Your task to perform on an android device: Go to sound settings Image 0: 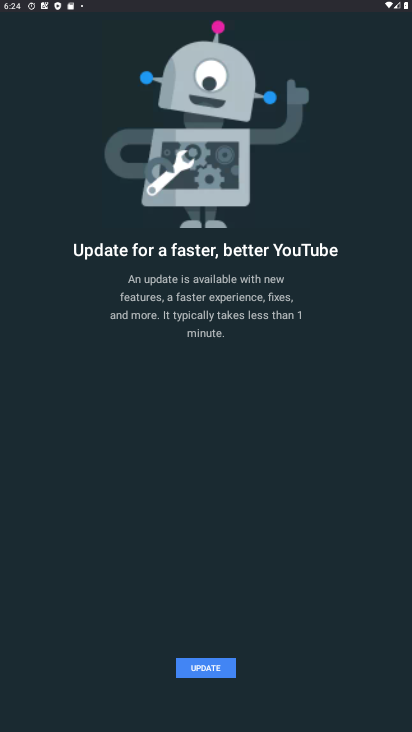
Step 0: press home button
Your task to perform on an android device: Go to sound settings Image 1: 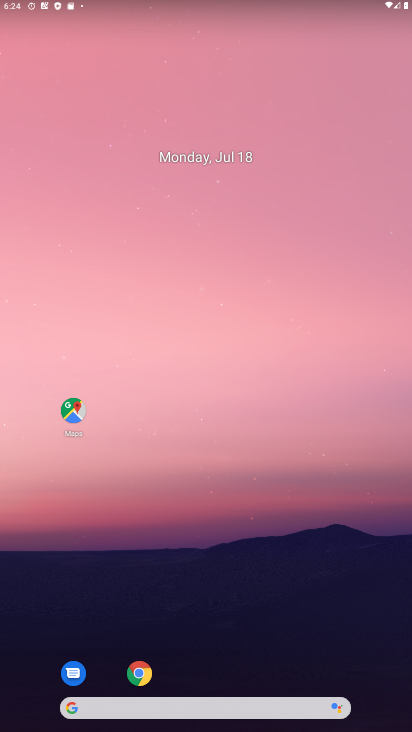
Step 1: drag from (293, 616) to (316, 298)
Your task to perform on an android device: Go to sound settings Image 2: 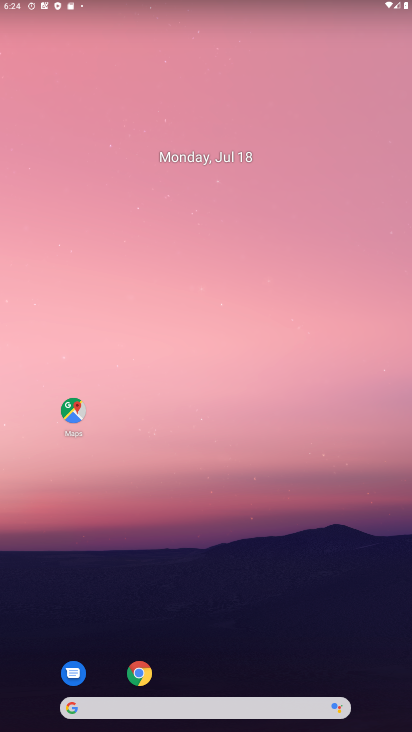
Step 2: drag from (257, 658) to (247, 288)
Your task to perform on an android device: Go to sound settings Image 3: 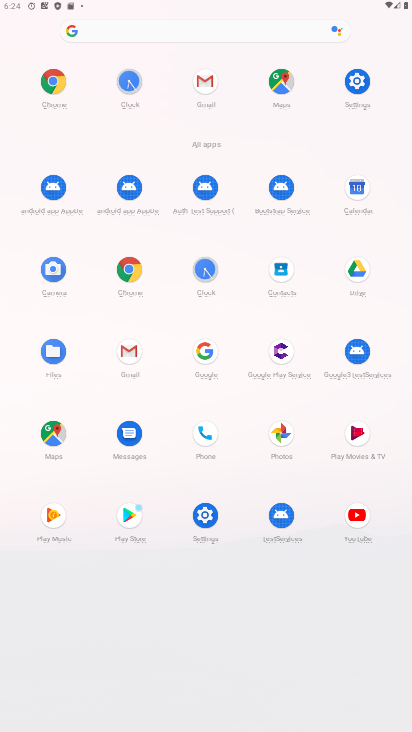
Step 3: click (202, 516)
Your task to perform on an android device: Go to sound settings Image 4: 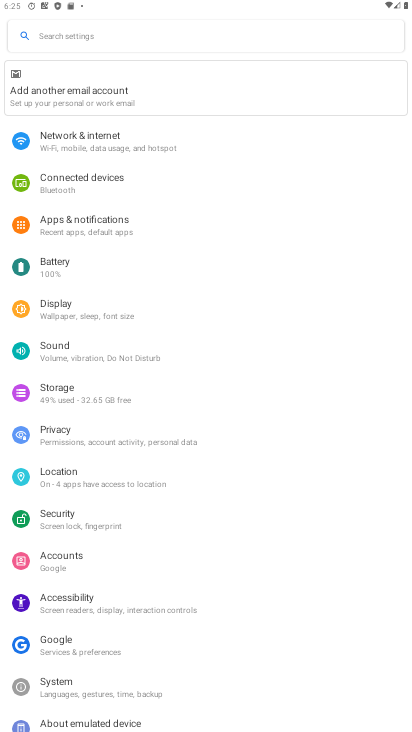
Step 4: click (59, 350)
Your task to perform on an android device: Go to sound settings Image 5: 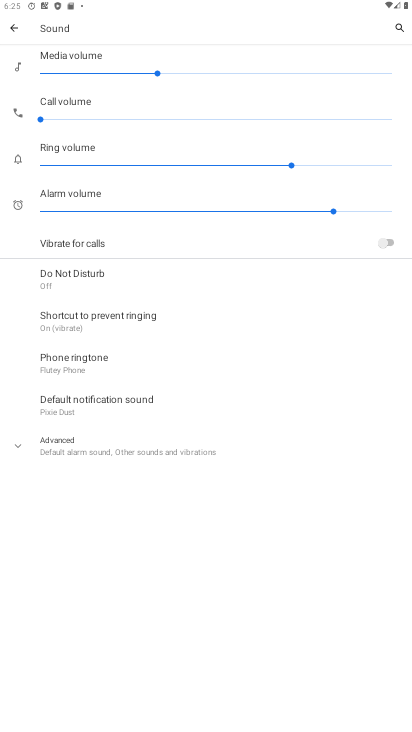
Step 5: task complete